Your task to perform on an android device: toggle wifi Image 0: 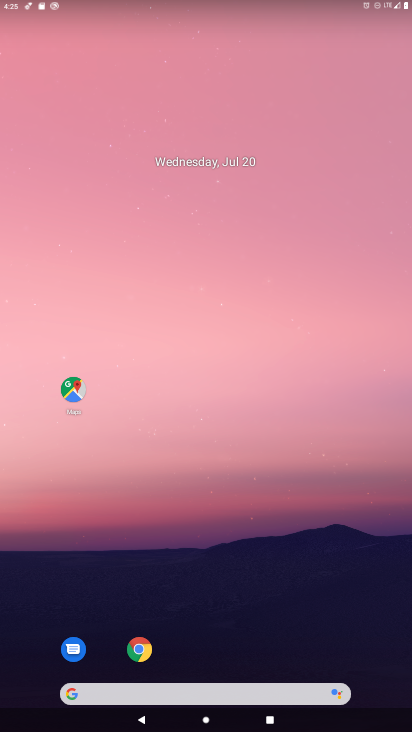
Step 0: drag from (141, 693) to (158, 0)
Your task to perform on an android device: toggle wifi Image 1: 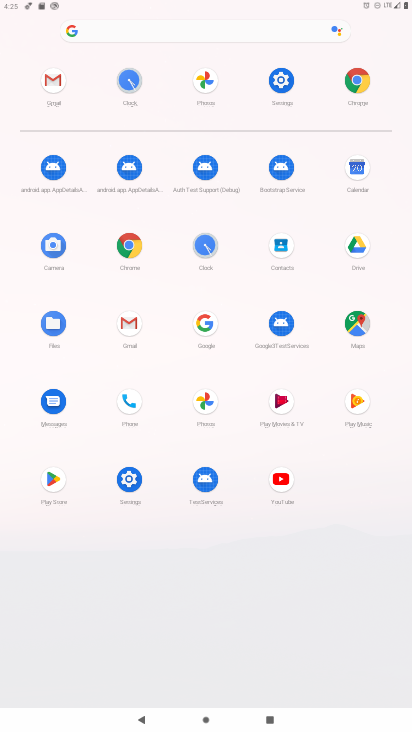
Step 1: click (281, 80)
Your task to perform on an android device: toggle wifi Image 2: 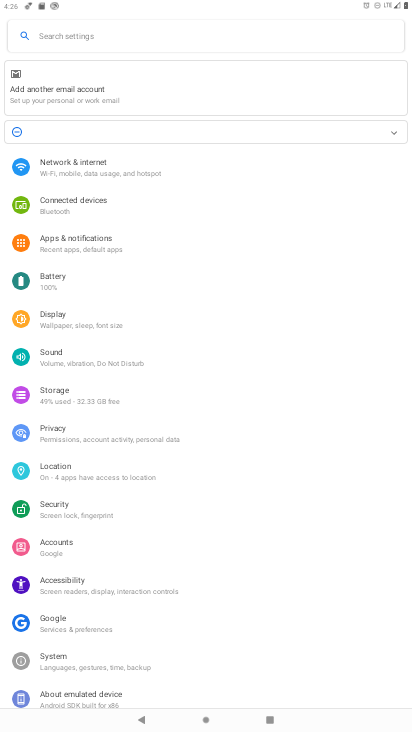
Step 2: click (88, 167)
Your task to perform on an android device: toggle wifi Image 3: 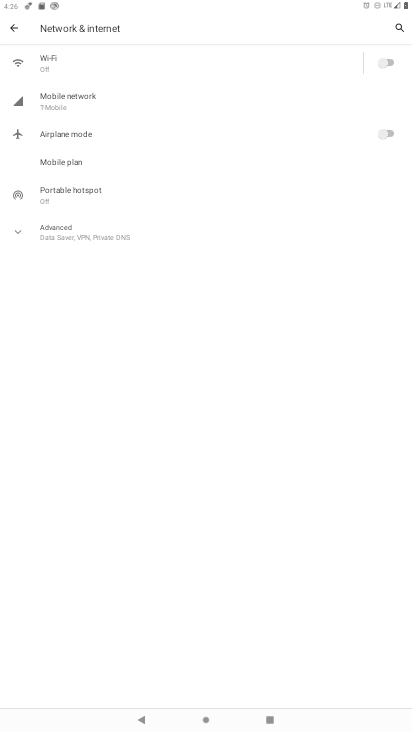
Step 3: click (386, 66)
Your task to perform on an android device: toggle wifi Image 4: 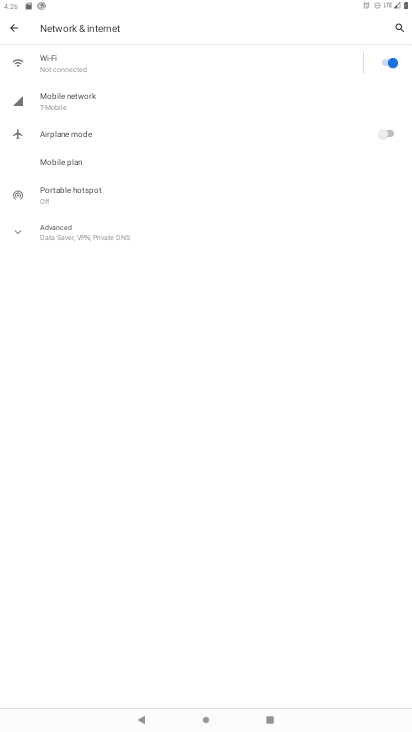
Step 4: task complete